Your task to perform on an android device: Add macbook pro to the cart on bestbuy.com Image 0: 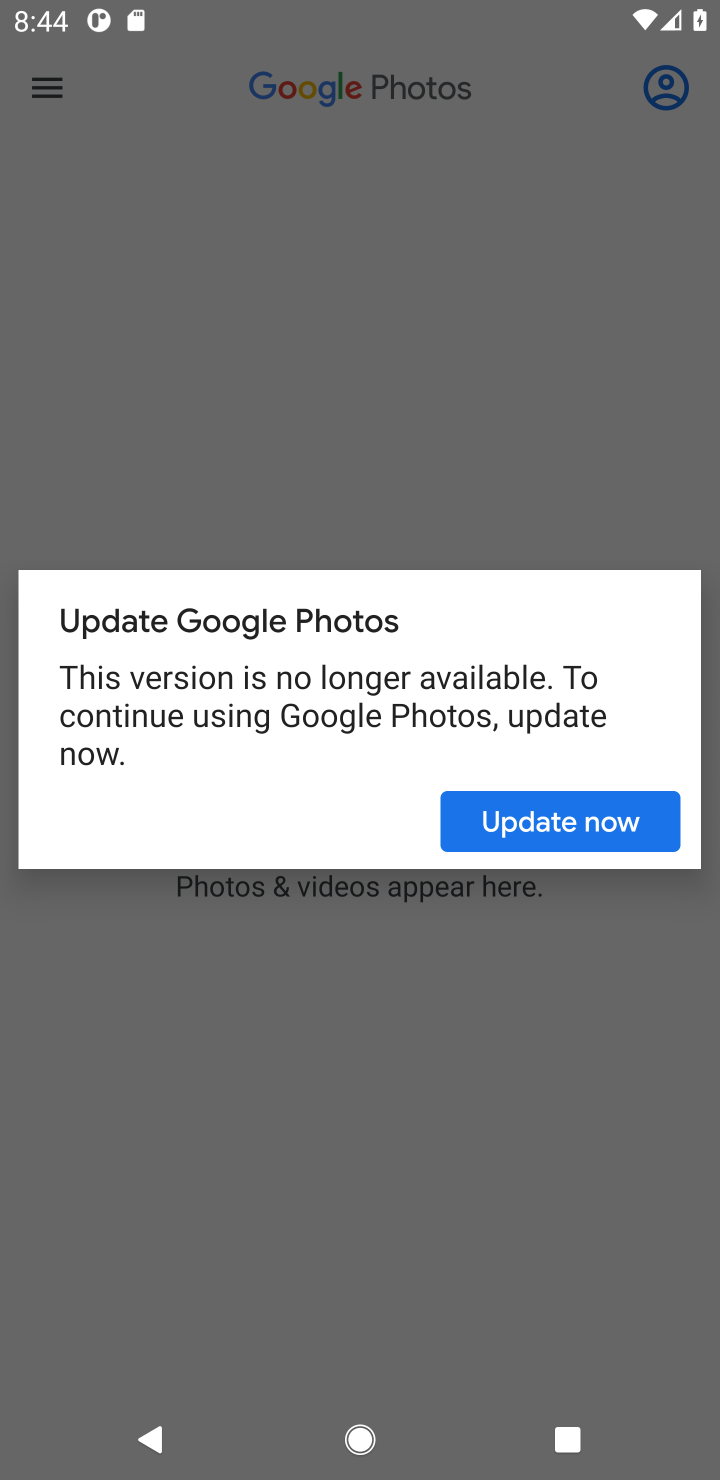
Step 0: task complete